Your task to perform on an android device: turn on translation in the chrome app Image 0: 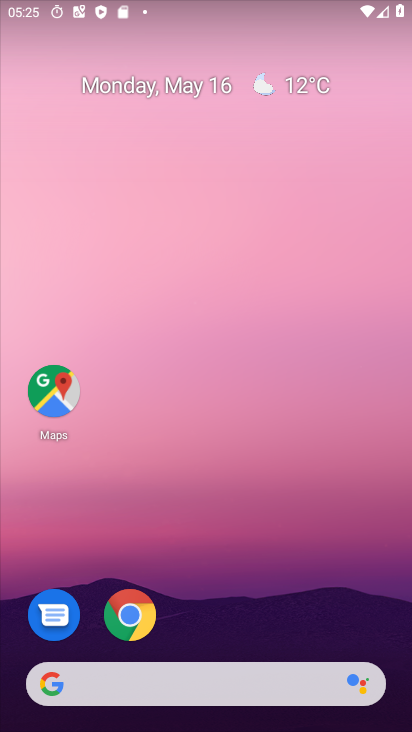
Step 0: drag from (319, 482) to (258, 174)
Your task to perform on an android device: turn on translation in the chrome app Image 1: 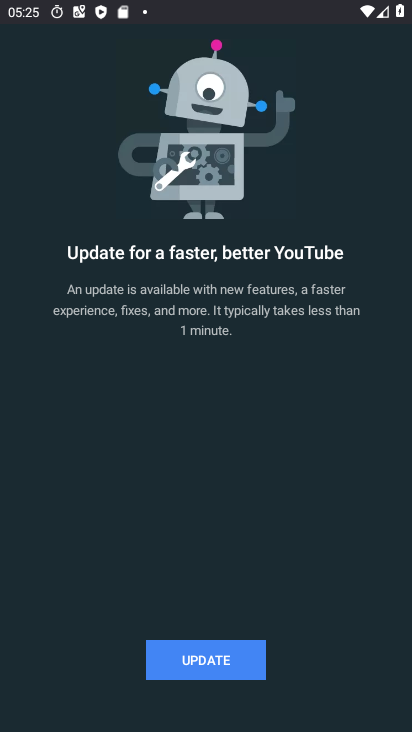
Step 1: click (227, 669)
Your task to perform on an android device: turn on translation in the chrome app Image 2: 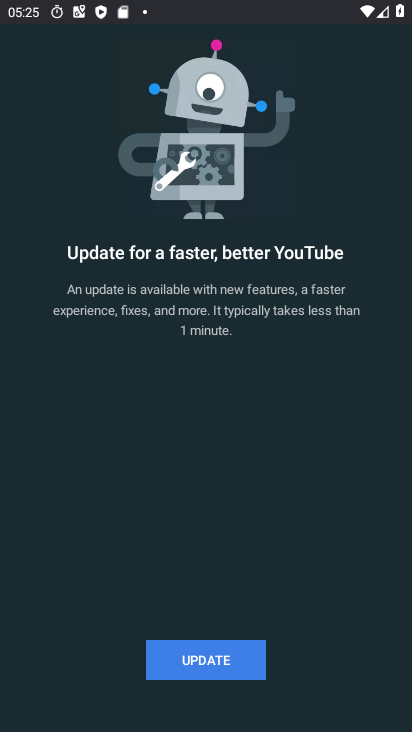
Step 2: click (210, 651)
Your task to perform on an android device: turn on translation in the chrome app Image 3: 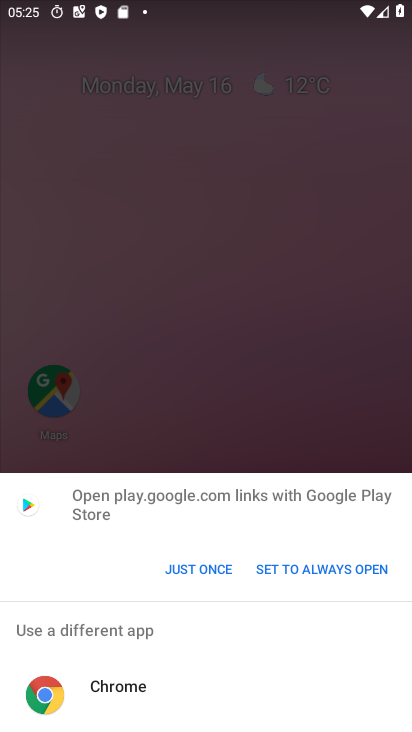
Step 3: click (167, 304)
Your task to perform on an android device: turn on translation in the chrome app Image 4: 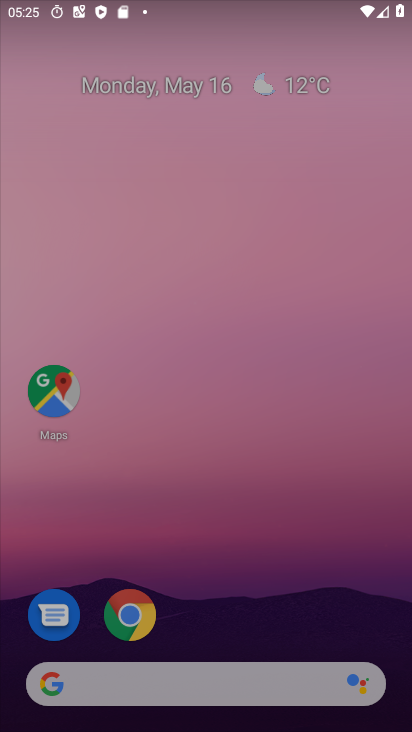
Step 4: click (171, 284)
Your task to perform on an android device: turn on translation in the chrome app Image 5: 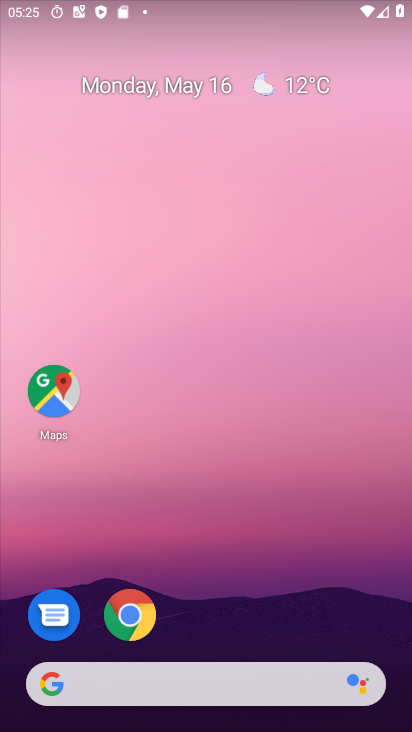
Step 5: click (171, 284)
Your task to perform on an android device: turn on translation in the chrome app Image 6: 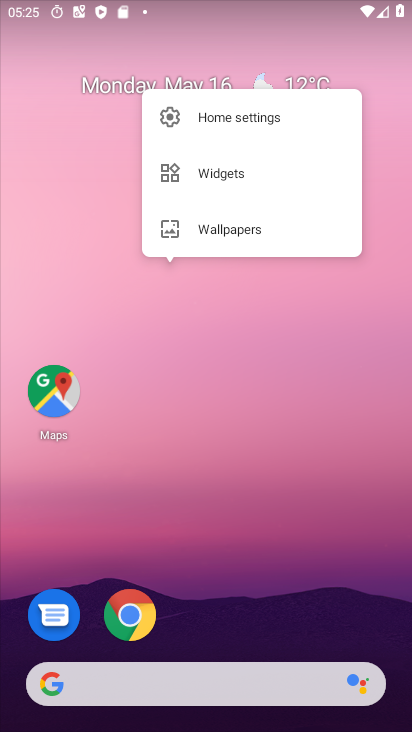
Step 6: drag from (247, 497) to (182, 31)
Your task to perform on an android device: turn on translation in the chrome app Image 7: 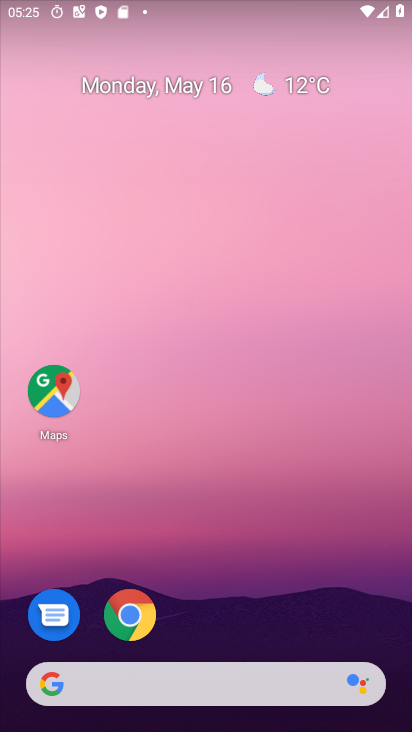
Step 7: drag from (189, 202) to (172, 20)
Your task to perform on an android device: turn on translation in the chrome app Image 8: 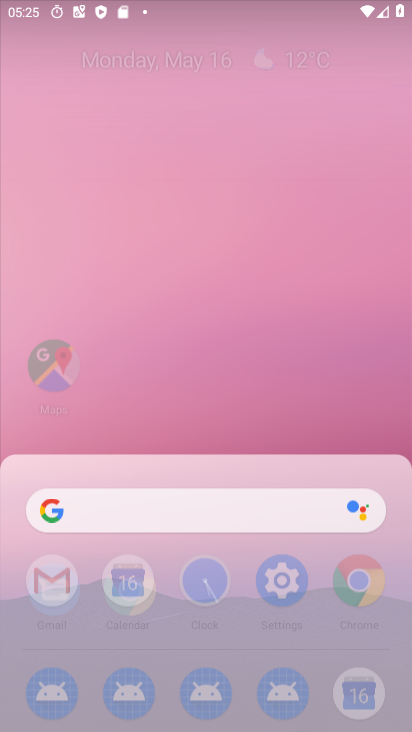
Step 8: drag from (222, 516) to (157, 29)
Your task to perform on an android device: turn on translation in the chrome app Image 9: 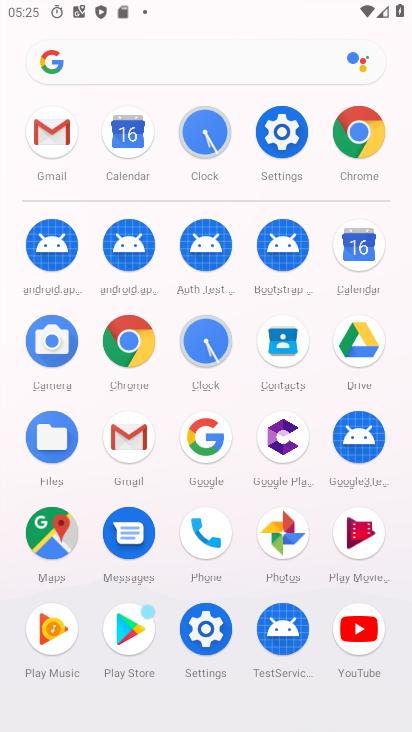
Step 9: drag from (231, 644) to (100, 26)
Your task to perform on an android device: turn on translation in the chrome app Image 10: 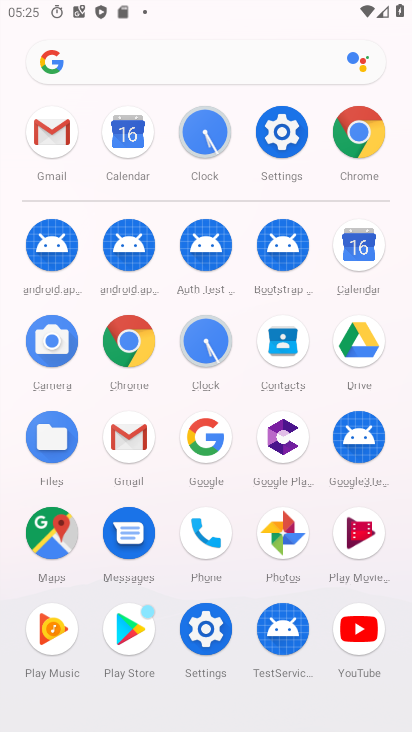
Step 10: click (355, 123)
Your task to perform on an android device: turn on translation in the chrome app Image 11: 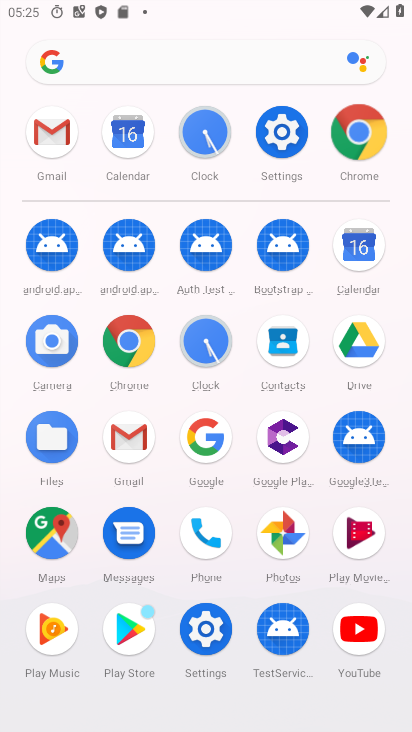
Step 11: click (355, 123)
Your task to perform on an android device: turn on translation in the chrome app Image 12: 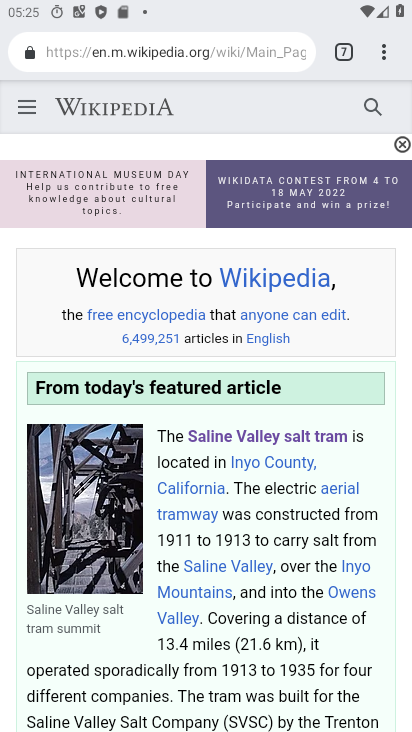
Step 12: drag from (377, 54) to (189, 648)
Your task to perform on an android device: turn on translation in the chrome app Image 13: 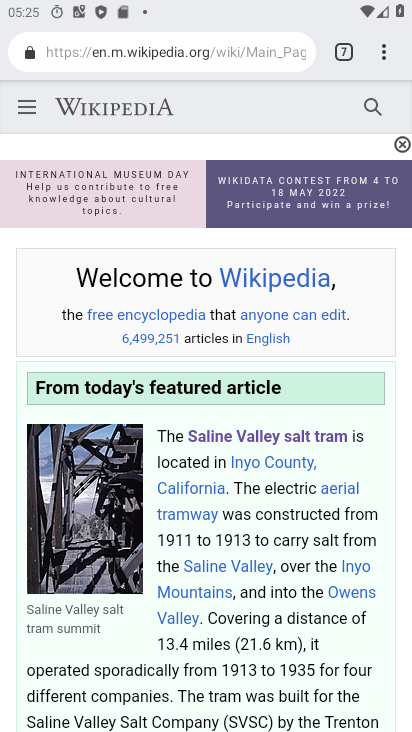
Step 13: click (189, 639)
Your task to perform on an android device: turn on translation in the chrome app Image 14: 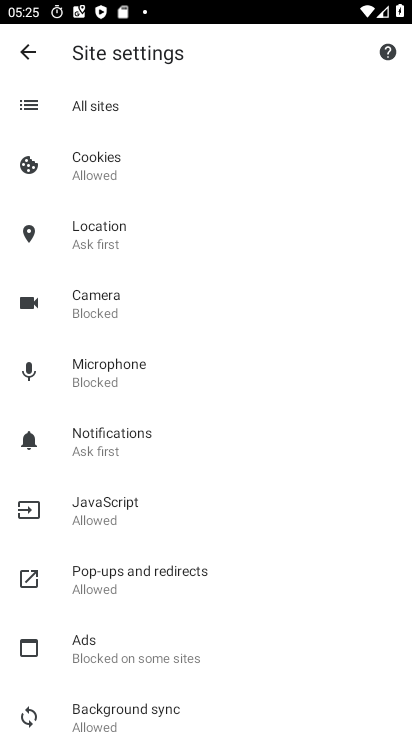
Step 14: click (19, 50)
Your task to perform on an android device: turn on translation in the chrome app Image 15: 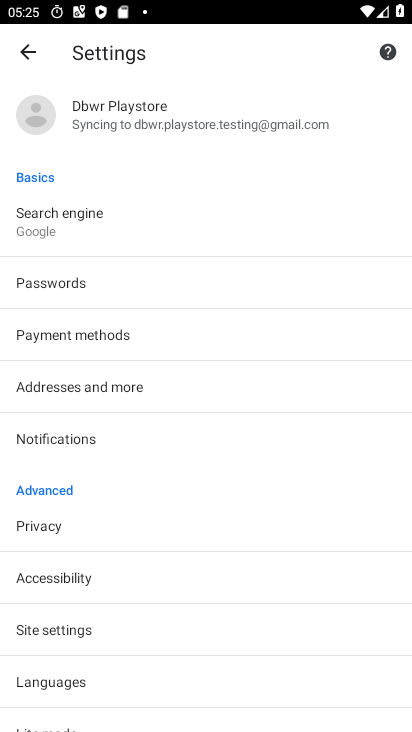
Step 15: click (56, 674)
Your task to perform on an android device: turn on translation in the chrome app Image 16: 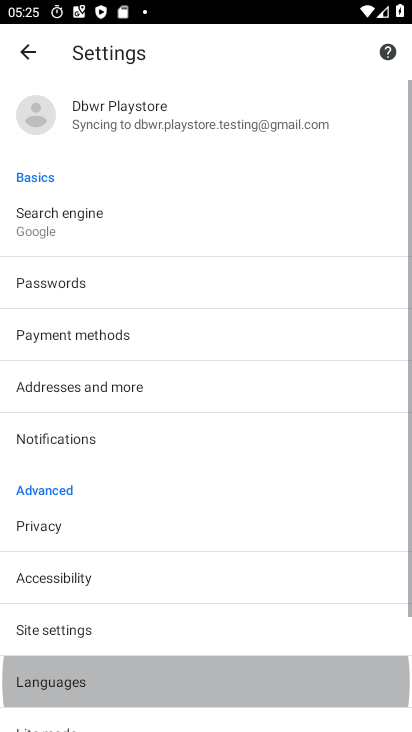
Step 16: click (52, 681)
Your task to perform on an android device: turn on translation in the chrome app Image 17: 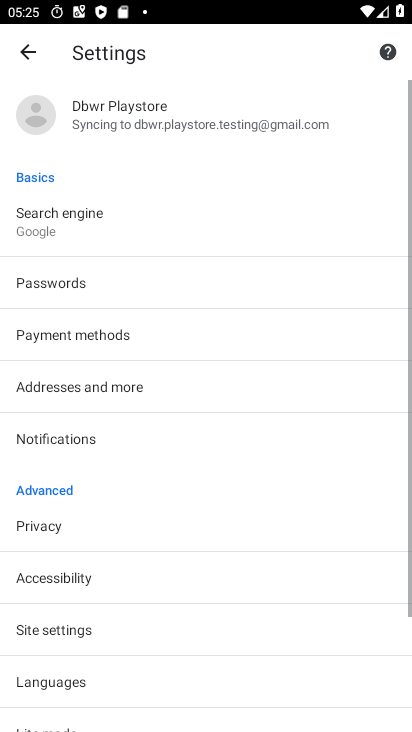
Step 17: click (62, 675)
Your task to perform on an android device: turn on translation in the chrome app Image 18: 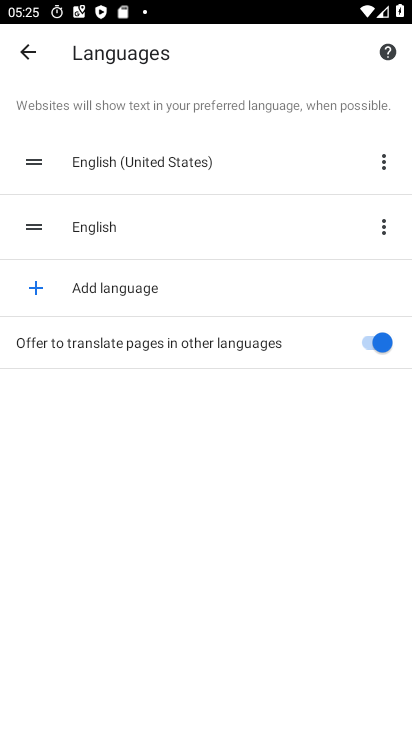
Step 18: click (384, 334)
Your task to perform on an android device: turn on translation in the chrome app Image 19: 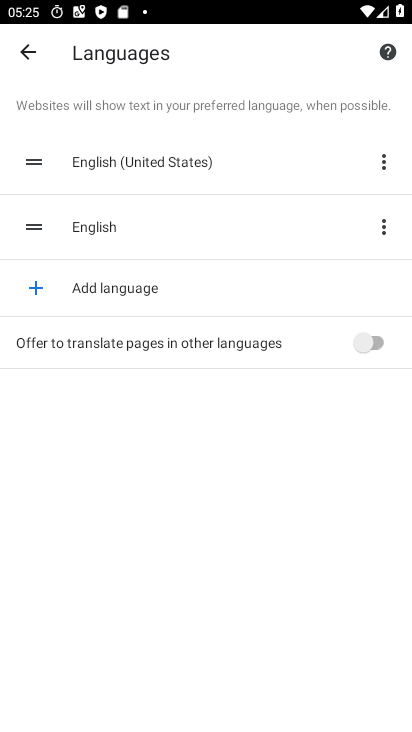
Step 19: click (365, 343)
Your task to perform on an android device: turn on translation in the chrome app Image 20: 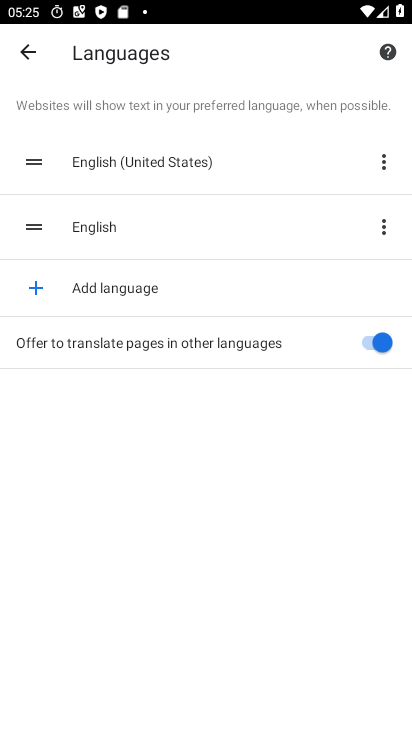
Step 20: task complete